Your task to perform on an android device: Go to location settings Image 0: 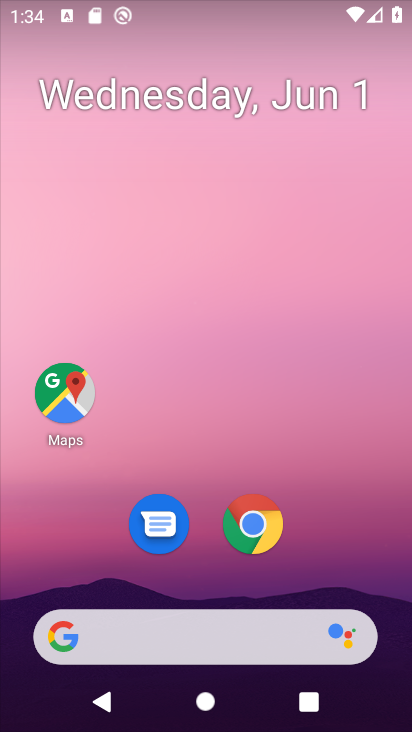
Step 0: drag from (207, 553) to (225, 48)
Your task to perform on an android device: Go to location settings Image 1: 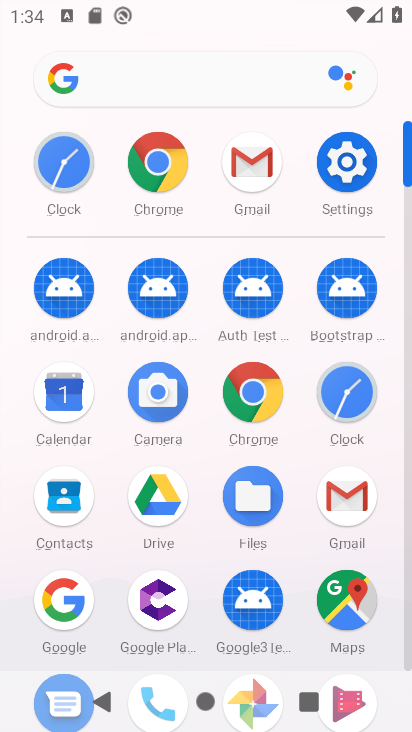
Step 1: click (353, 179)
Your task to perform on an android device: Go to location settings Image 2: 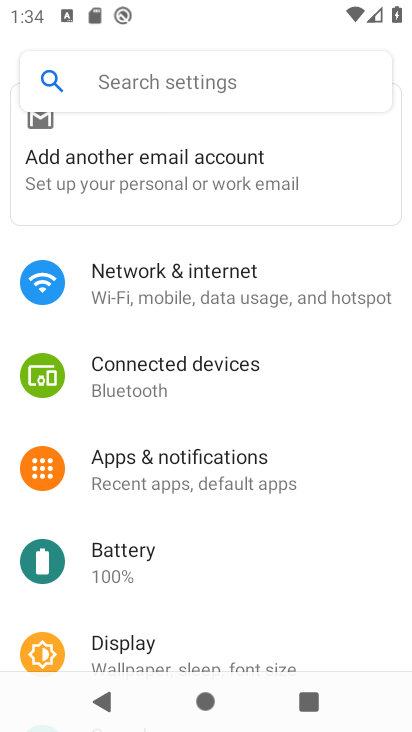
Step 2: drag from (249, 556) to (249, 130)
Your task to perform on an android device: Go to location settings Image 3: 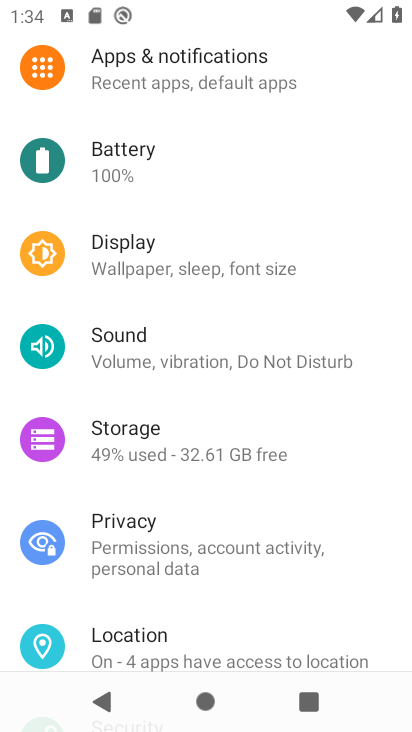
Step 3: click (253, 642)
Your task to perform on an android device: Go to location settings Image 4: 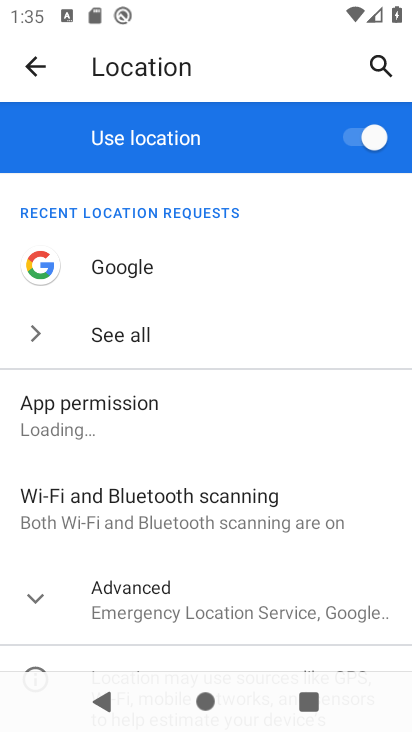
Step 4: task complete